Your task to perform on an android device: Look up the best rated coffee table on Ikea Image 0: 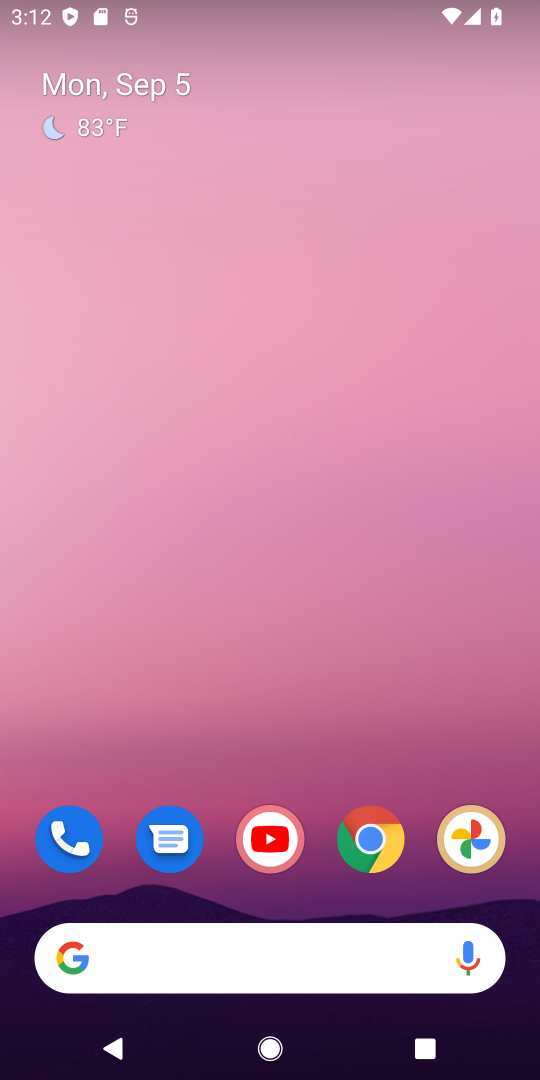
Step 0: click (370, 826)
Your task to perform on an android device: Look up the best rated coffee table on Ikea Image 1: 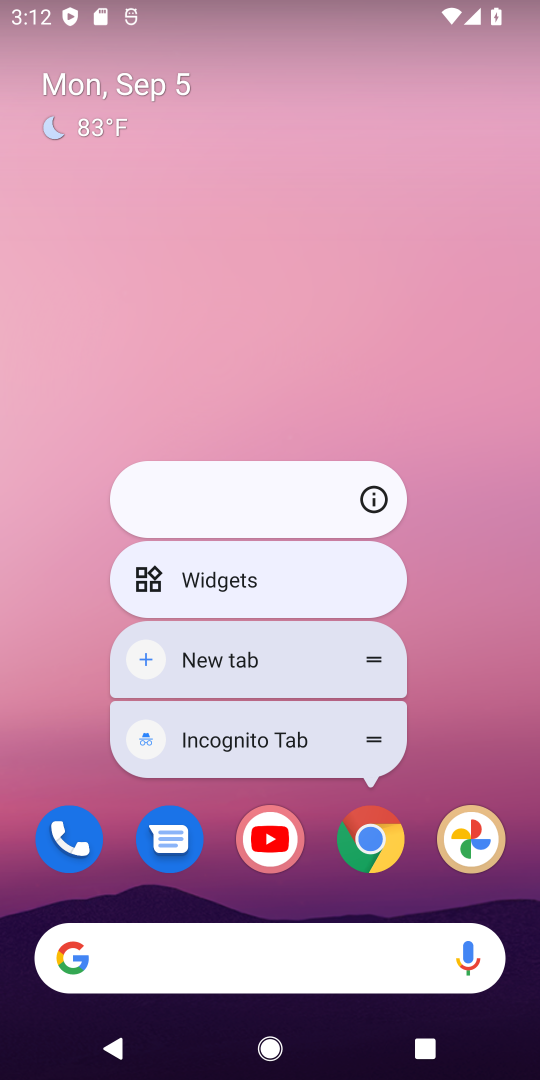
Step 1: click (370, 826)
Your task to perform on an android device: Look up the best rated coffee table on Ikea Image 2: 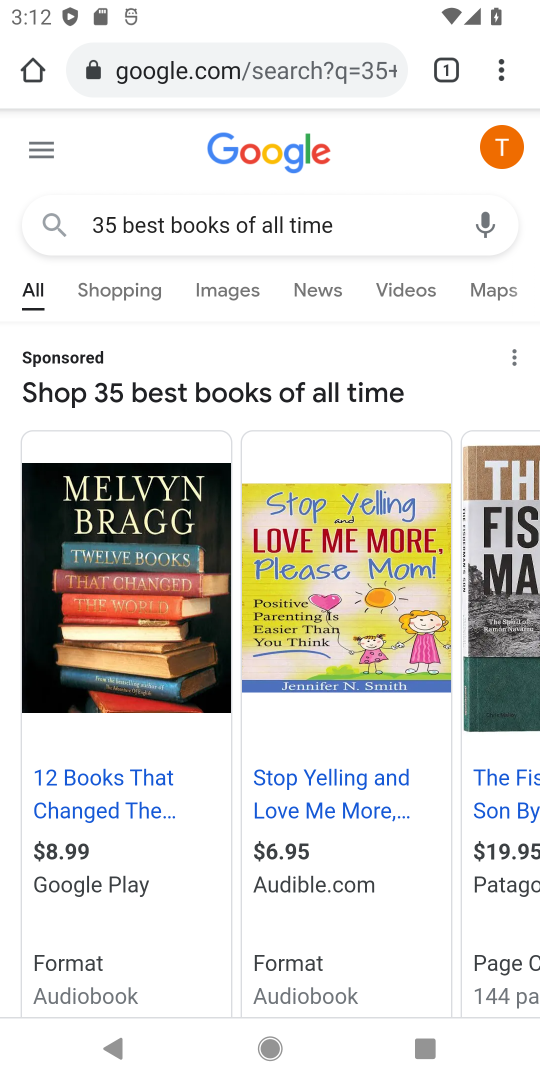
Step 2: click (251, 75)
Your task to perform on an android device: Look up the best rated coffee table on Ikea Image 3: 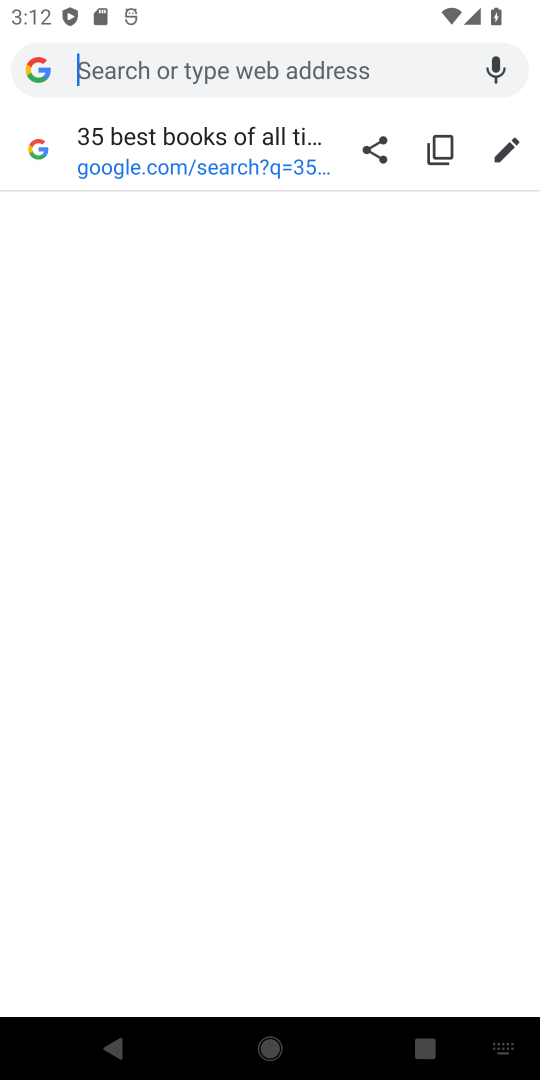
Step 3: type "Ikea"
Your task to perform on an android device: Look up the best rated coffee table on Ikea Image 4: 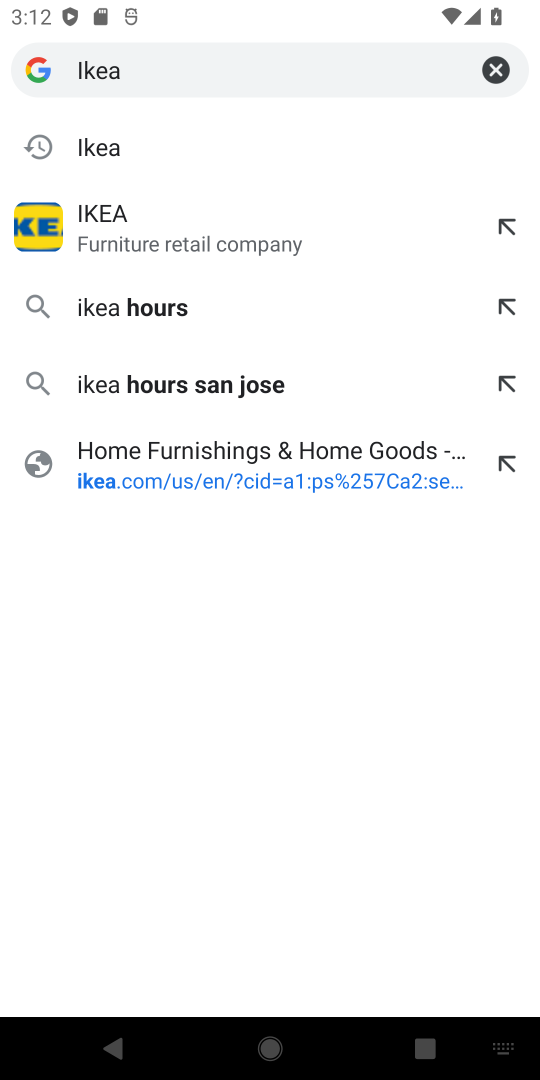
Step 4: click (79, 155)
Your task to perform on an android device: Look up the best rated coffee table on Ikea Image 5: 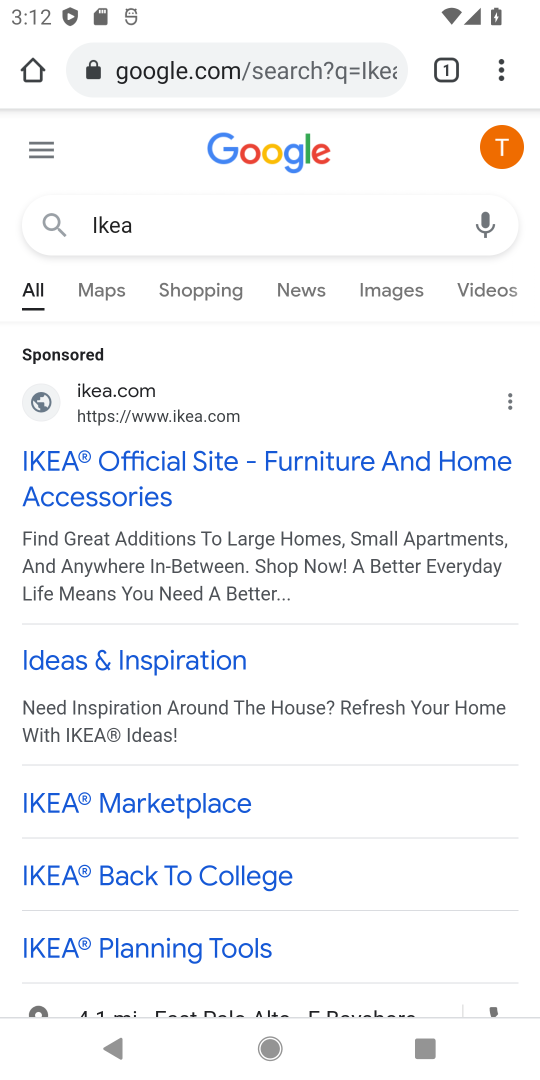
Step 5: click (225, 495)
Your task to perform on an android device: Look up the best rated coffee table on Ikea Image 6: 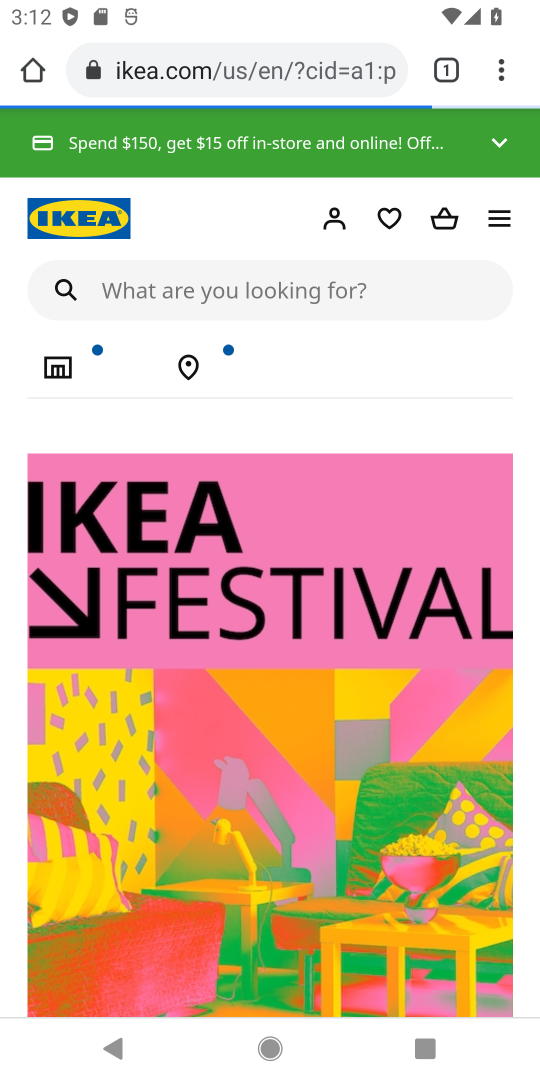
Step 6: click (322, 281)
Your task to perform on an android device: Look up the best rated coffee table on Ikea Image 7: 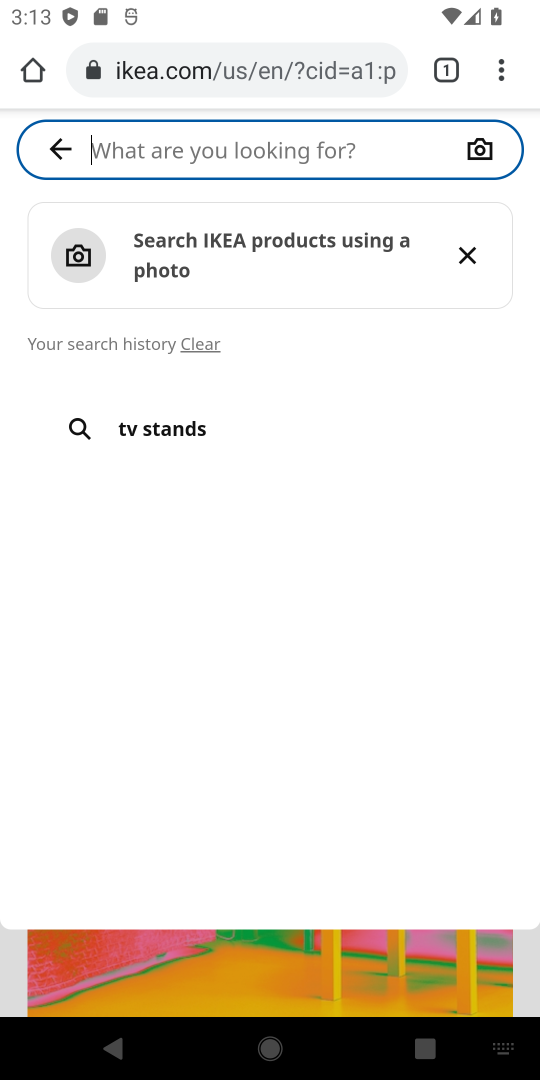
Step 7: type "the best rated coffee table"
Your task to perform on an android device: Look up the best rated coffee table on Ikea Image 8: 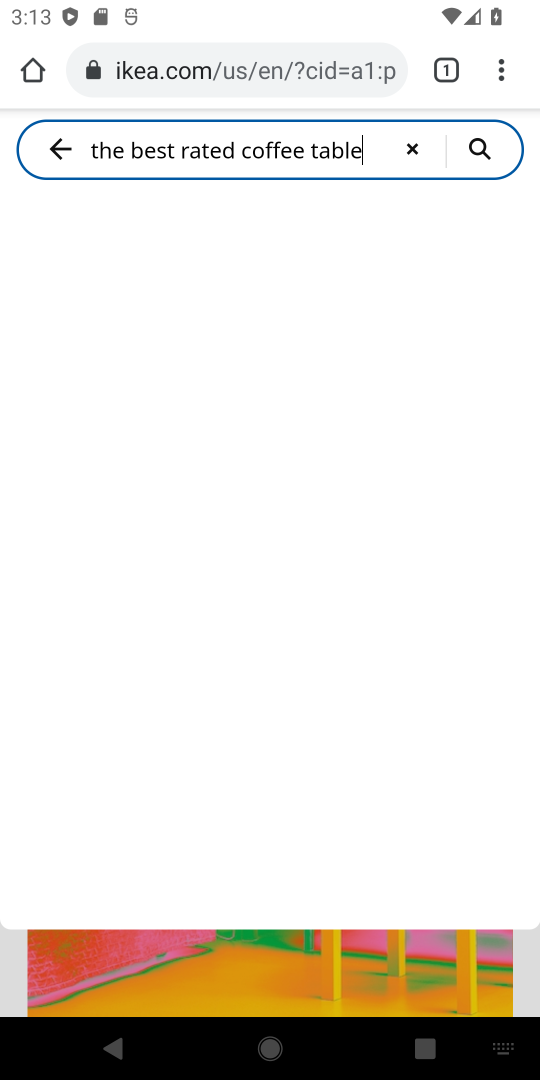
Step 8: click (476, 151)
Your task to perform on an android device: Look up the best rated coffee table on Ikea Image 9: 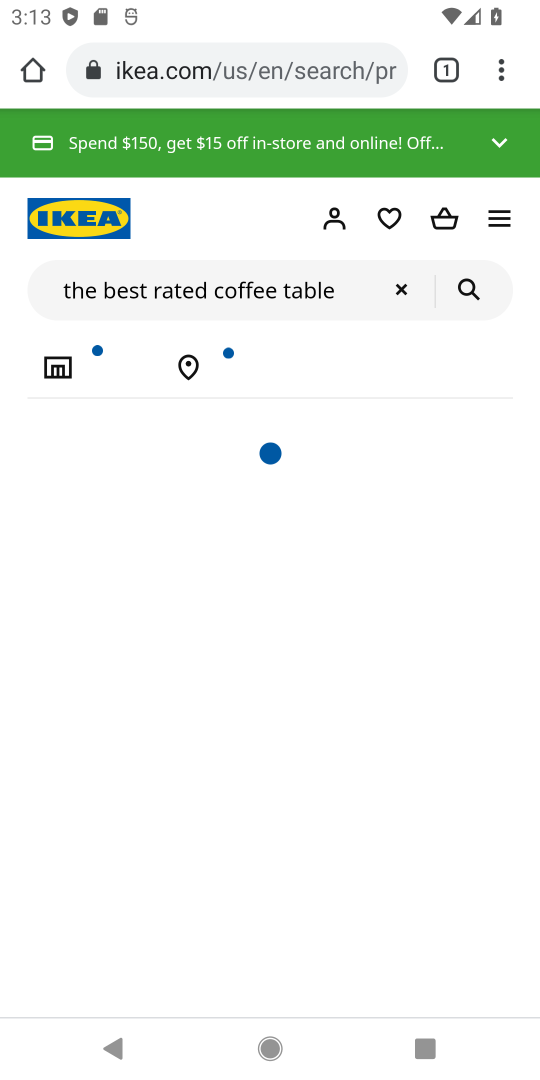
Step 9: click (476, 154)
Your task to perform on an android device: Look up the best rated coffee table on Ikea Image 10: 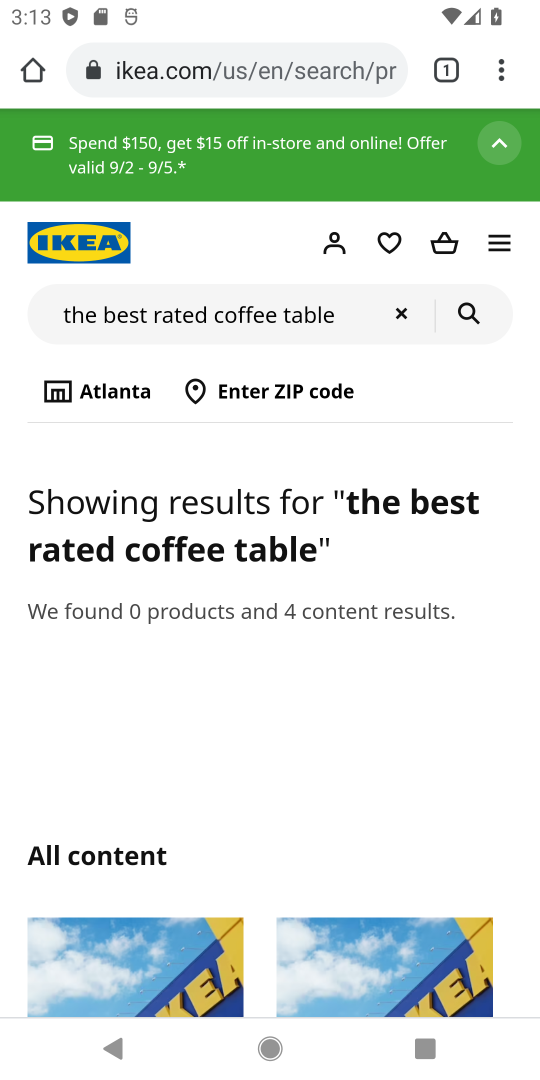
Step 10: task complete